Your task to perform on an android device: add a contact Image 0: 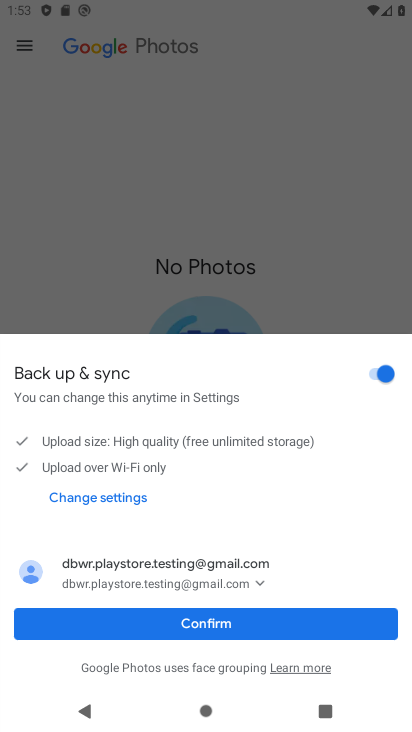
Step 0: press home button
Your task to perform on an android device: add a contact Image 1: 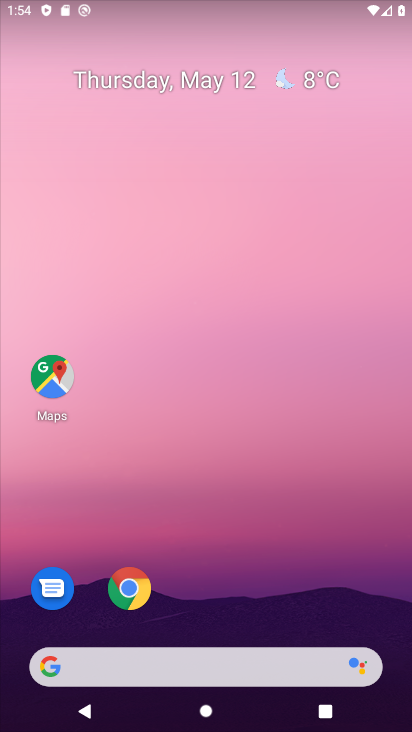
Step 1: drag from (292, 608) to (274, 126)
Your task to perform on an android device: add a contact Image 2: 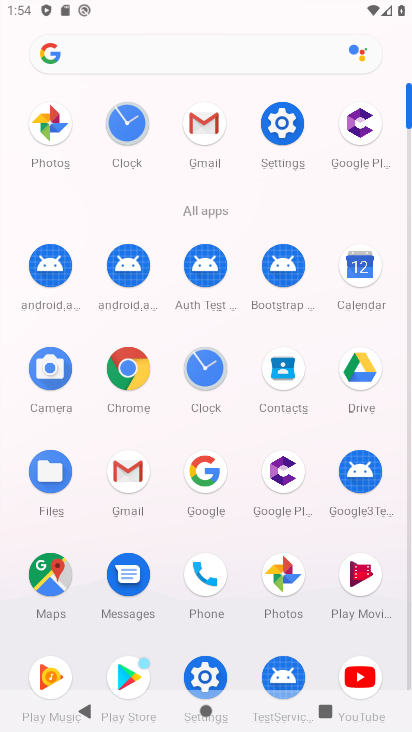
Step 2: click (293, 128)
Your task to perform on an android device: add a contact Image 3: 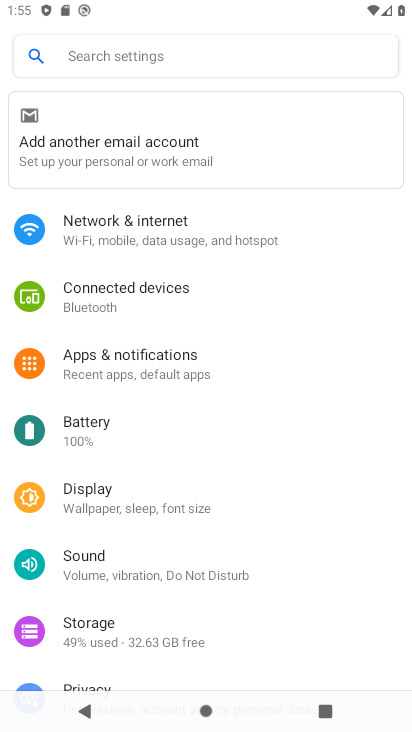
Step 3: press home button
Your task to perform on an android device: add a contact Image 4: 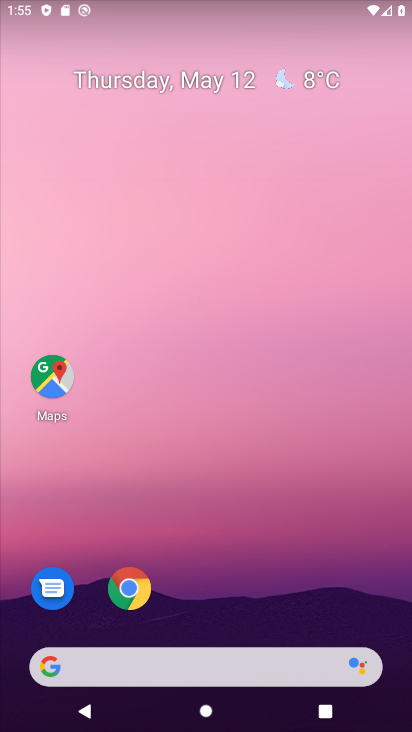
Step 4: drag from (277, 567) to (282, 103)
Your task to perform on an android device: add a contact Image 5: 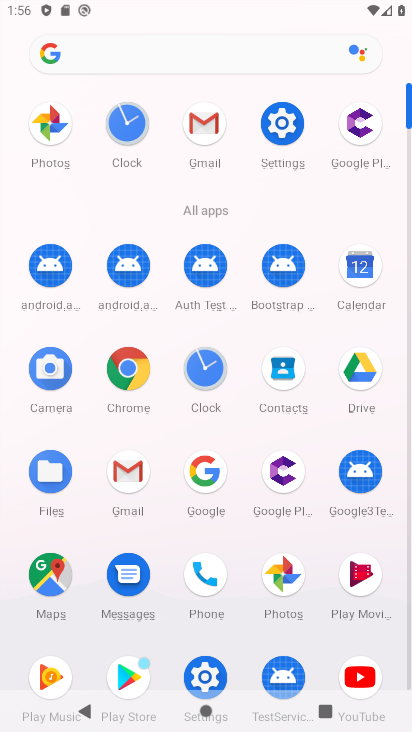
Step 5: click (290, 381)
Your task to perform on an android device: add a contact Image 6: 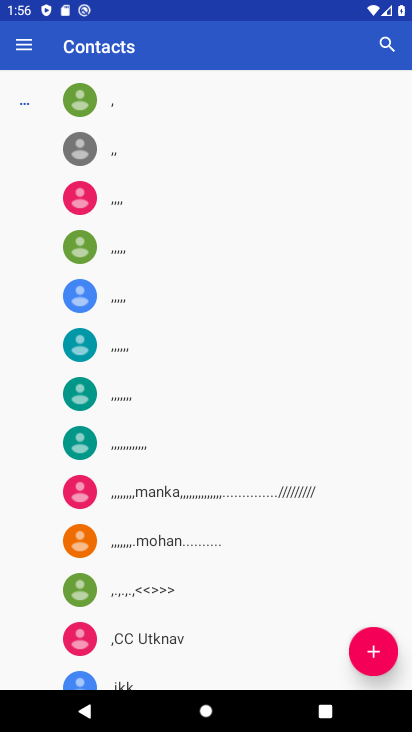
Step 6: click (379, 657)
Your task to perform on an android device: add a contact Image 7: 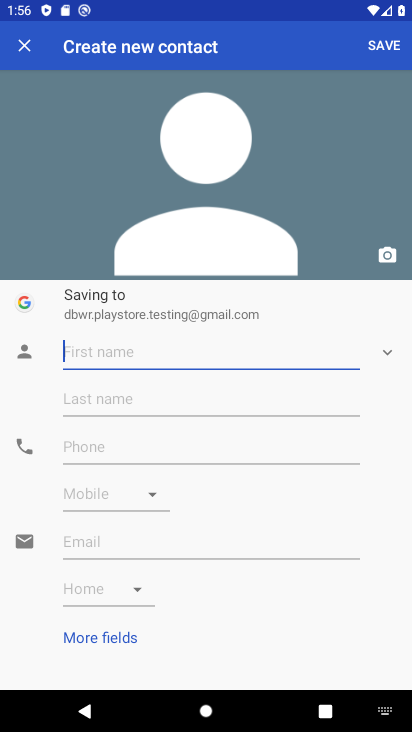
Step 7: task complete